Your task to perform on an android device: change notification settings in the gmail app Image 0: 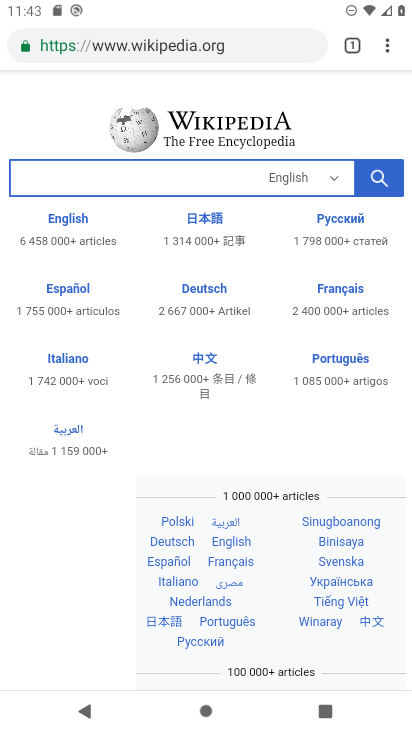
Step 0: press home button
Your task to perform on an android device: change notification settings in the gmail app Image 1: 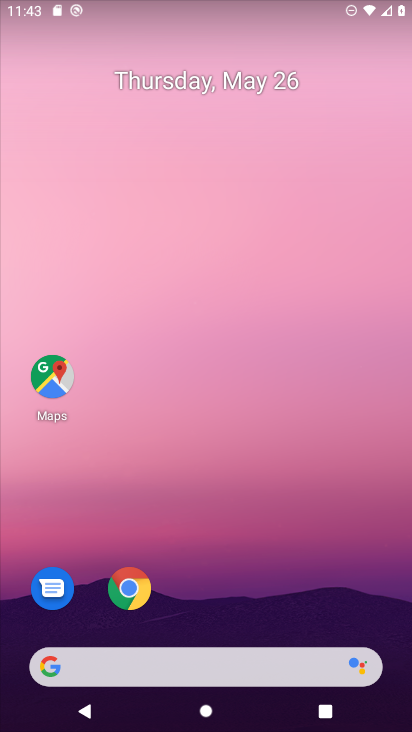
Step 1: drag from (370, 617) to (351, 69)
Your task to perform on an android device: change notification settings in the gmail app Image 2: 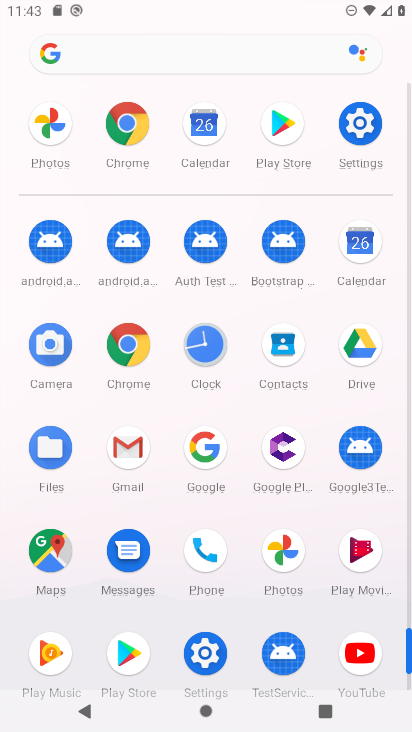
Step 2: click (127, 448)
Your task to perform on an android device: change notification settings in the gmail app Image 3: 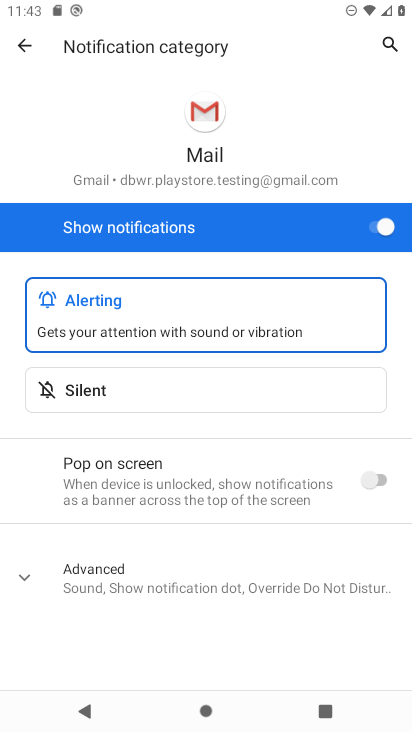
Step 3: press back button
Your task to perform on an android device: change notification settings in the gmail app Image 4: 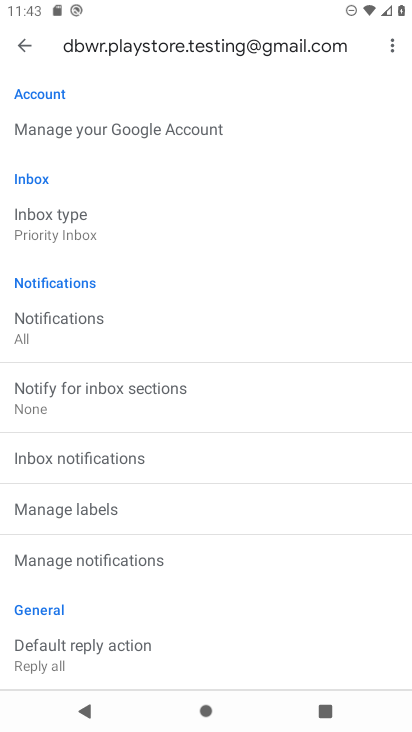
Step 4: click (139, 557)
Your task to perform on an android device: change notification settings in the gmail app Image 5: 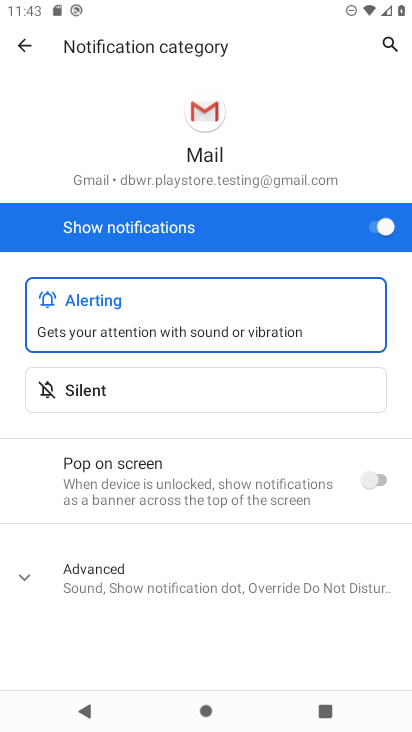
Step 5: click (22, 576)
Your task to perform on an android device: change notification settings in the gmail app Image 6: 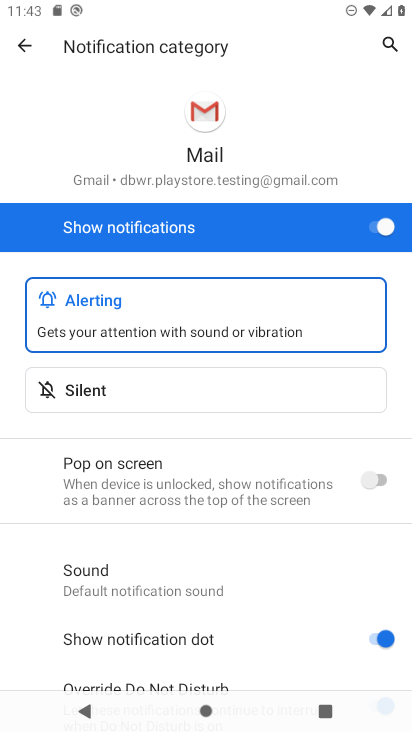
Step 6: drag from (272, 625) to (304, 87)
Your task to perform on an android device: change notification settings in the gmail app Image 7: 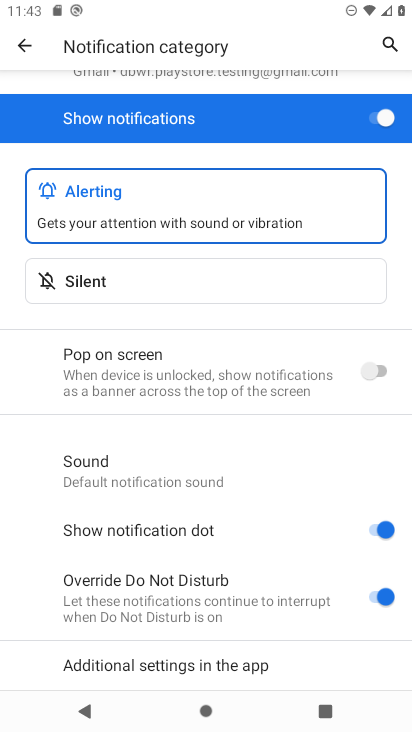
Step 7: click (368, 522)
Your task to perform on an android device: change notification settings in the gmail app Image 8: 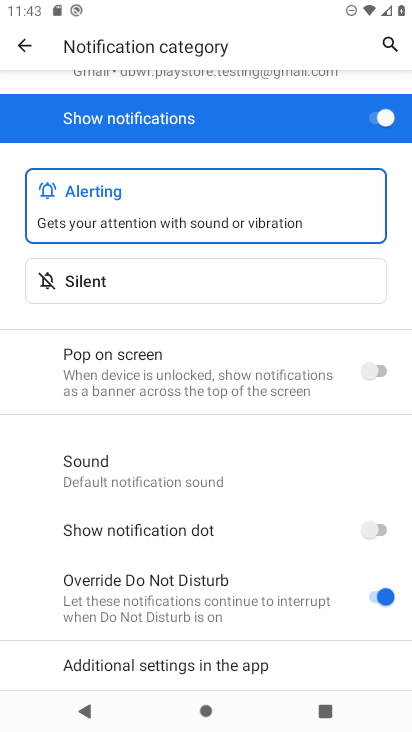
Step 8: click (366, 600)
Your task to perform on an android device: change notification settings in the gmail app Image 9: 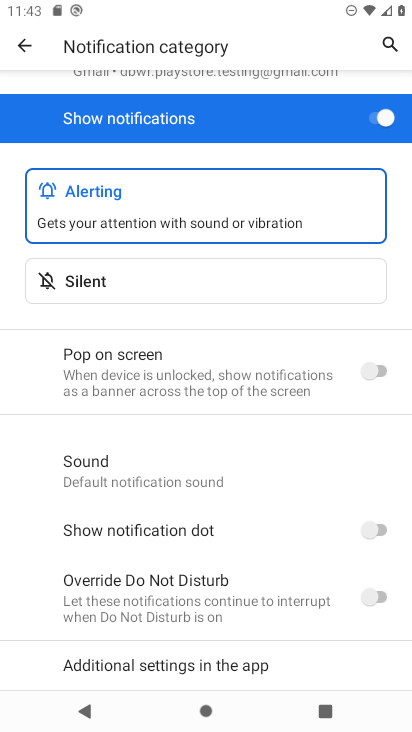
Step 9: drag from (348, 333) to (305, 617)
Your task to perform on an android device: change notification settings in the gmail app Image 10: 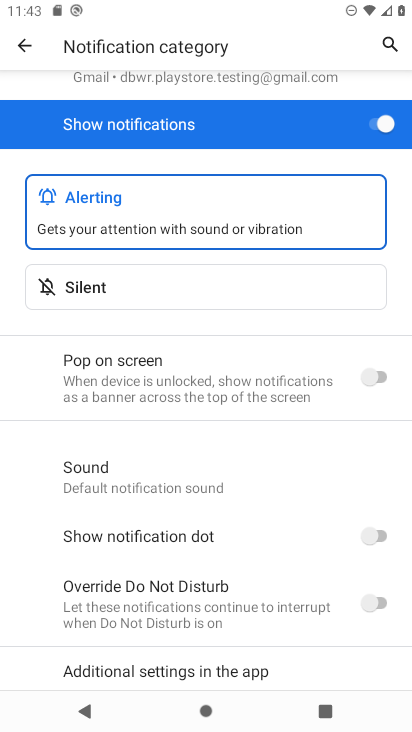
Step 10: click (368, 118)
Your task to perform on an android device: change notification settings in the gmail app Image 11: 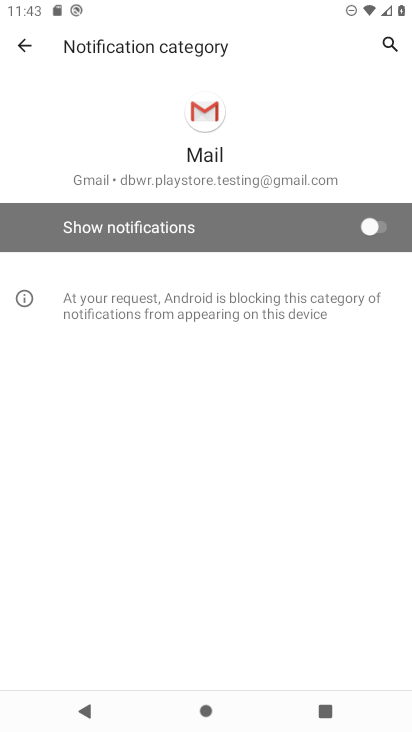
Step 11: task complete